Your task to perform on an android device: Open my contact list Image 0: 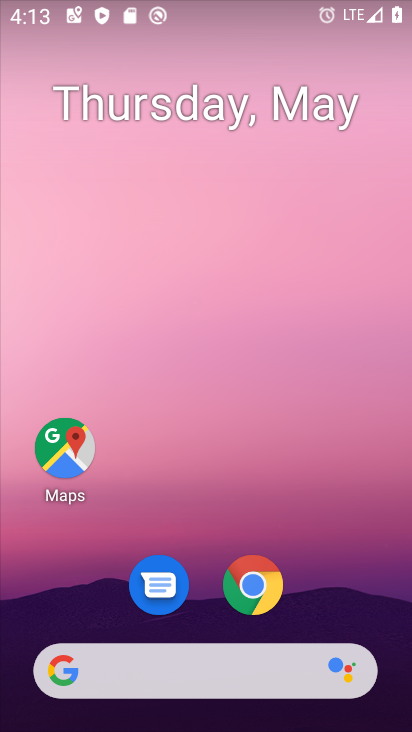
Step 0: drag from (293, 523) to (311, 38)
Your task to perform on an android device: Open my contact list Image 1: 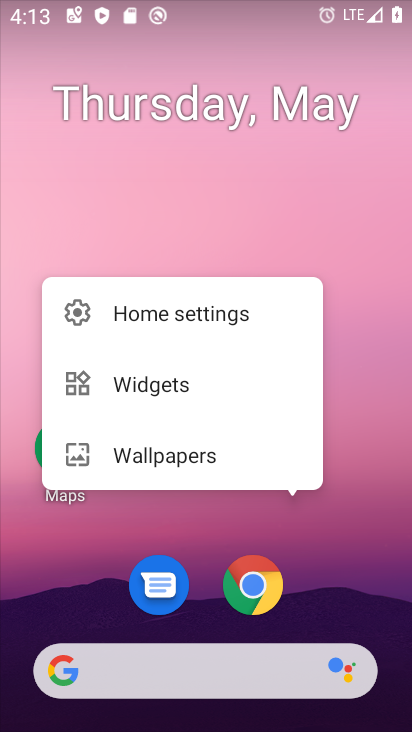
Step 1: click (364, 311)
Your task to perform on an android device: Open my contact list Image 2: 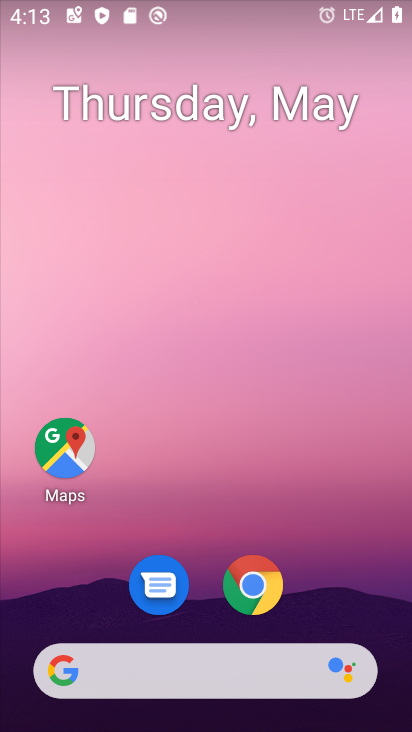
Step 2: drag from (216, 509) to (204, 1)
Your task to perform on an android device: Open my contact list Image 3: 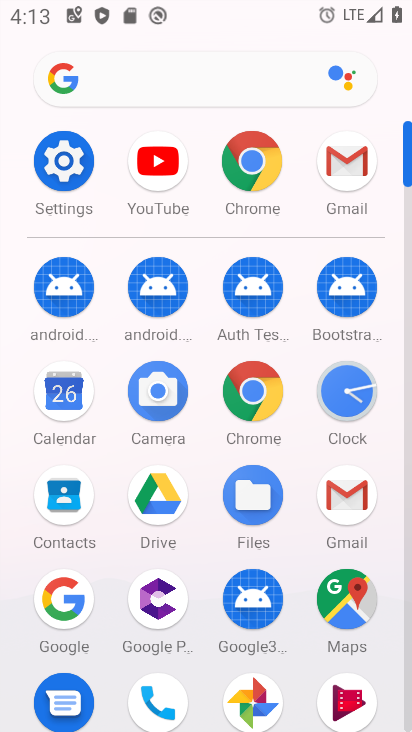
Step 3: click (70, 487)
Your task to perform on an android device: Open my contact list Image 4: 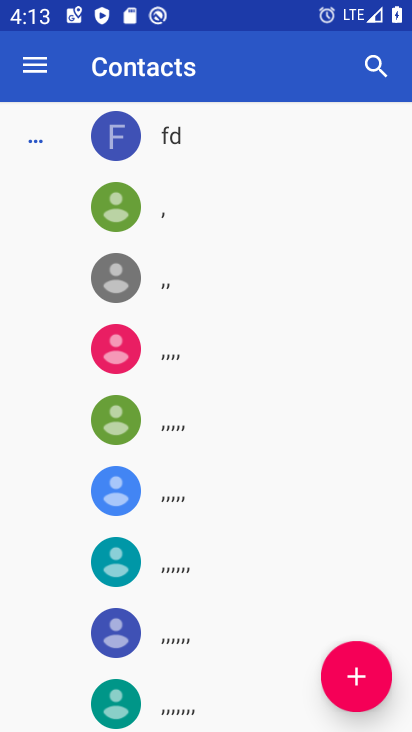
Step 4: task complete